Your task to perform on an android device: open a bookmark in the chrome app Image 0: 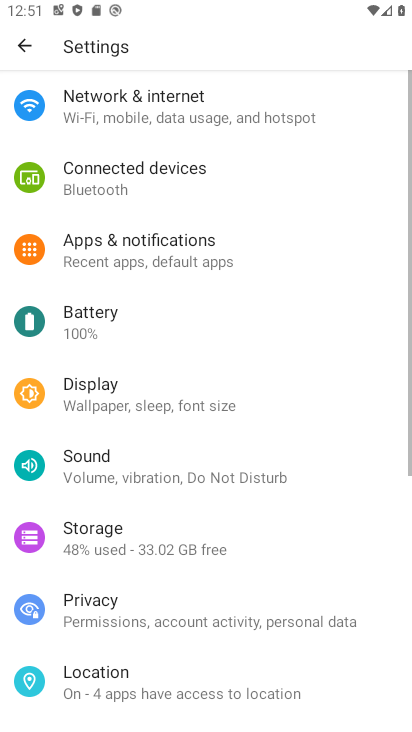
Step 0: press home button
Your task to perform on an android device: open a bookmark in the chrome app Image 1: 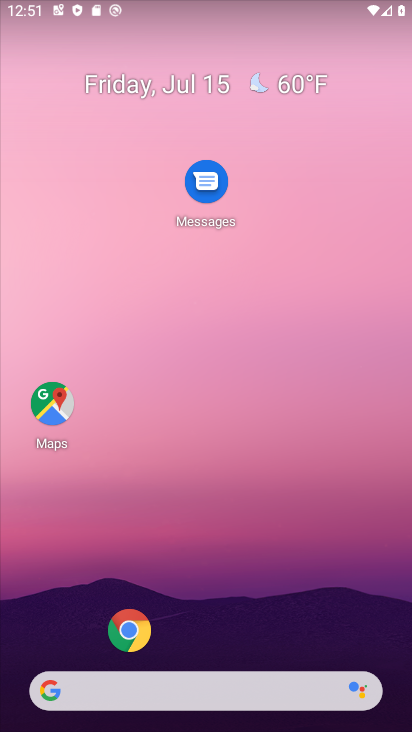
Step 1: click (142, 622)
Your task to perform on an android device: open a bookmark in the chrome app Image 2: 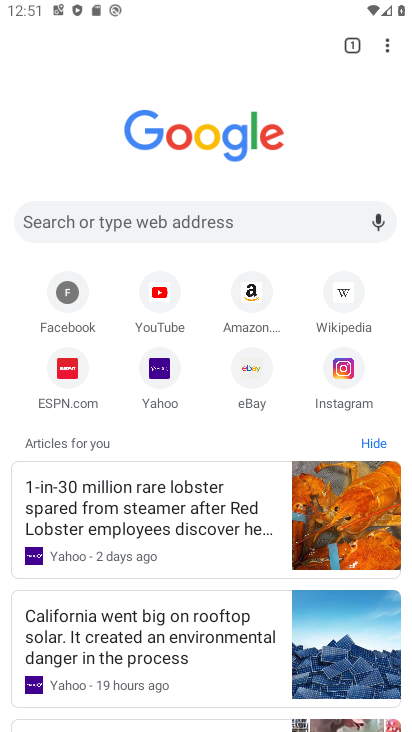
Step 2: click (393, 42)
Your task to perform on an android device: open a bookmark in the chrome app Image 3: 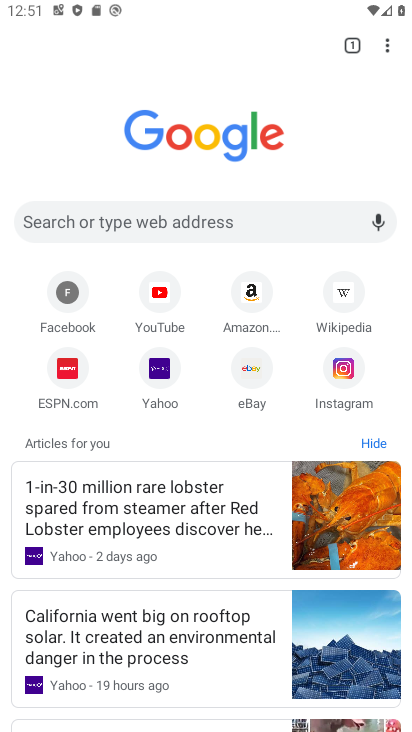
Step 3: click (382, 42)
Your task to perform on an android device: open a bookmark in the chrome app Image 4: 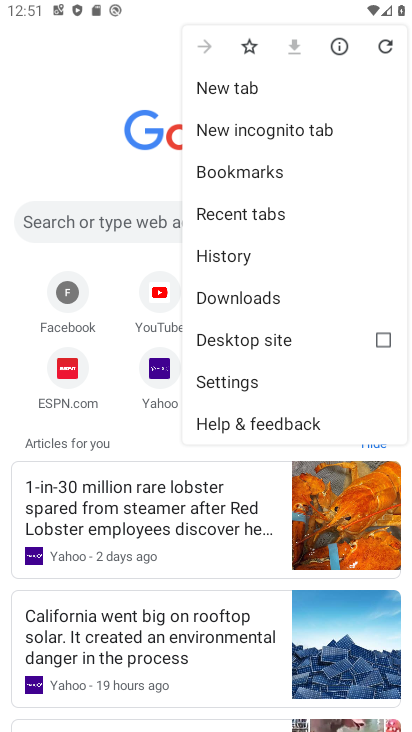
Step 4: click (261, 167)
Your task to perform on an android device: open a bookmark in the chrome app Image 5: 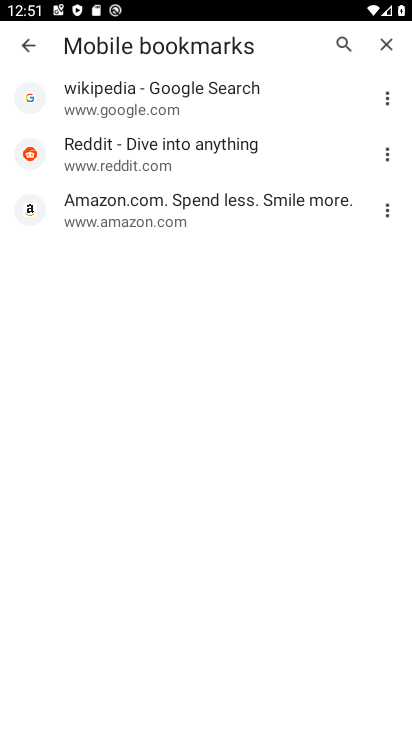
Step 5: task complete